Your task to perform on an android device: Open Google Chrome and open the bookmarks view Image 0: 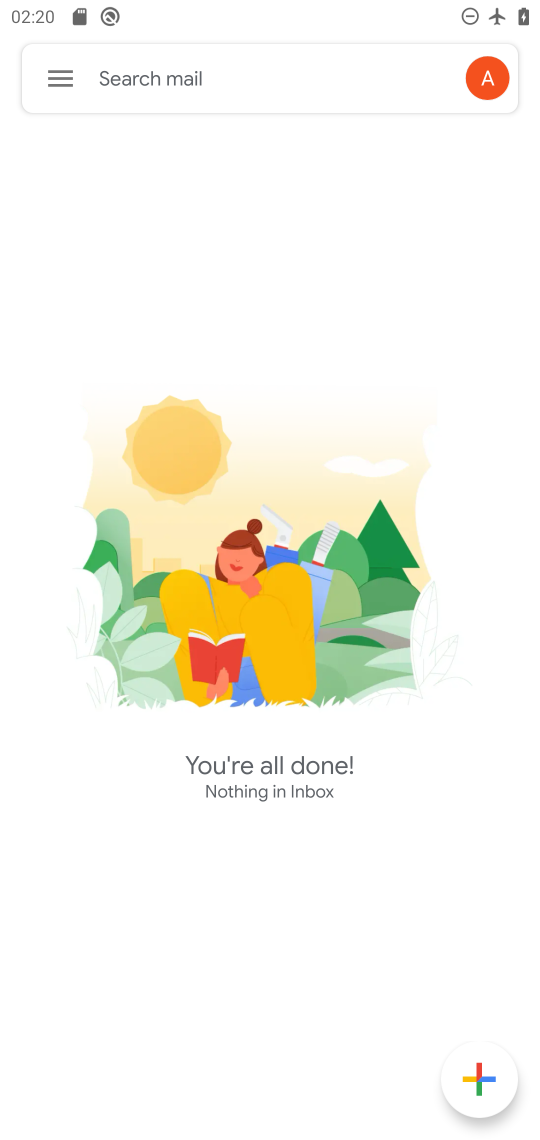
Step 0: press home button
Your task to perform on an android device: Open Google Chrome and open the bookmarks view Image 1: 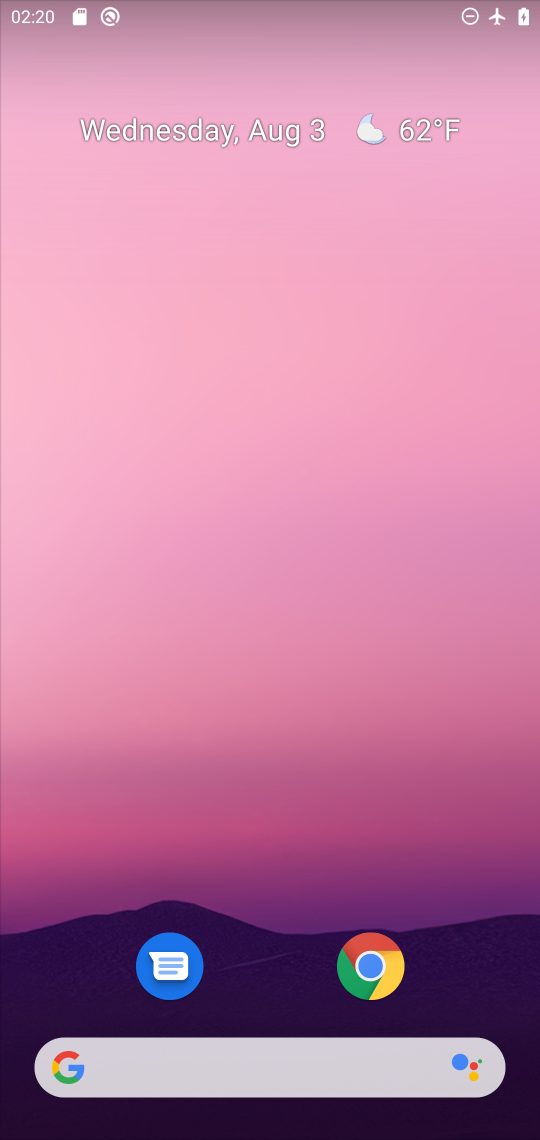
Step 1: click (371, 965)
Your task to perform on an android device: Open Google Chrome and open the bookmarks view Image 2: 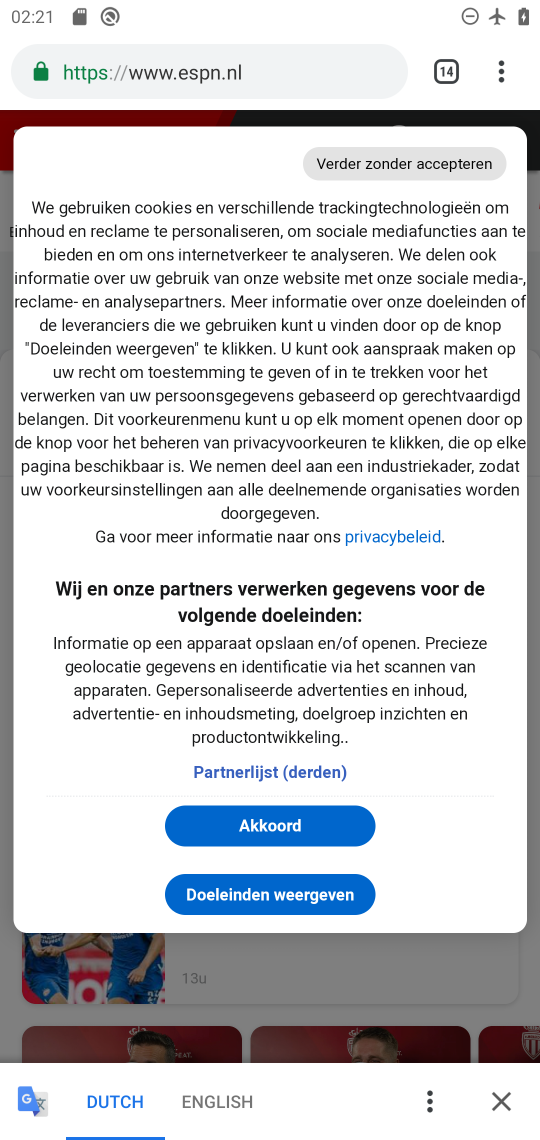
Step 2: click (502, 80)
Your task to perform on an android device: Open Google Chrome and open the bookmarks view Image 3: 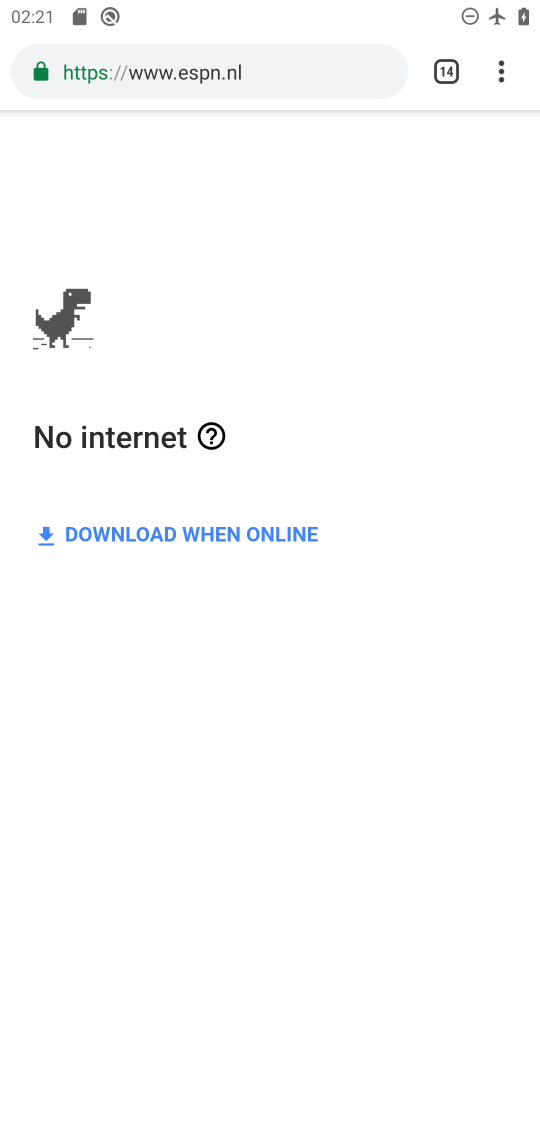
Step 3: task complete